Your task to perform on an android device: Go to Wikipedia Image 0: 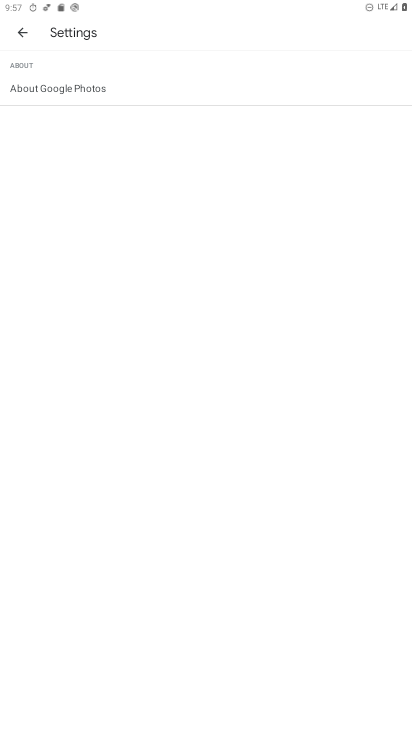
Step 0: press home button
Your task to perform on an android device: Go to Wikipedia Image 1: 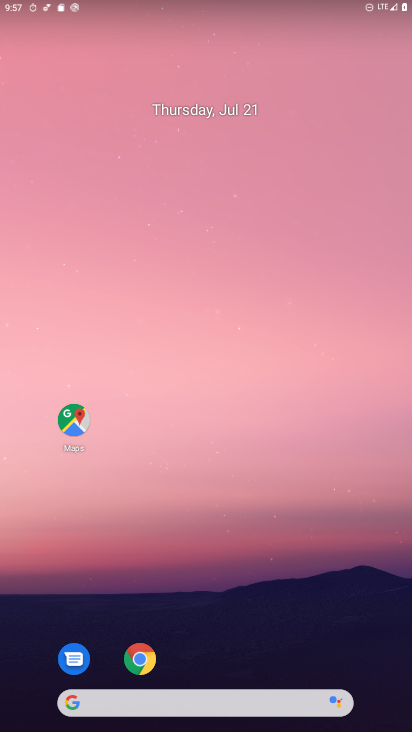
Step 1: drag from (315, 638) to (246, 94)
Your task to perform on an android device: Go to Wikipedia Image 2: 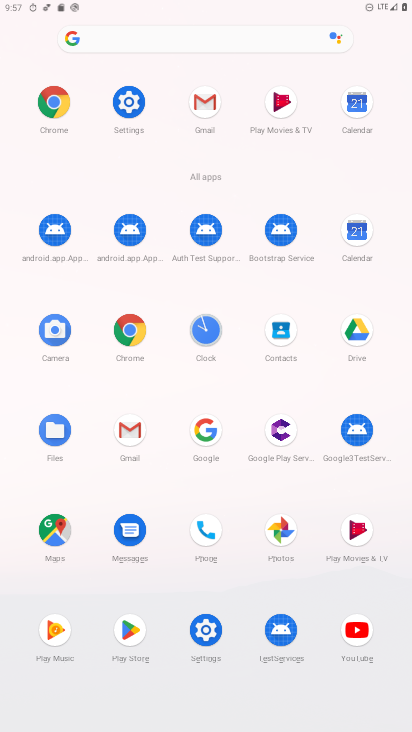
Step 2: click (125, 330)
Your task to perform on an android device: Go to Wikipedia Image 3: 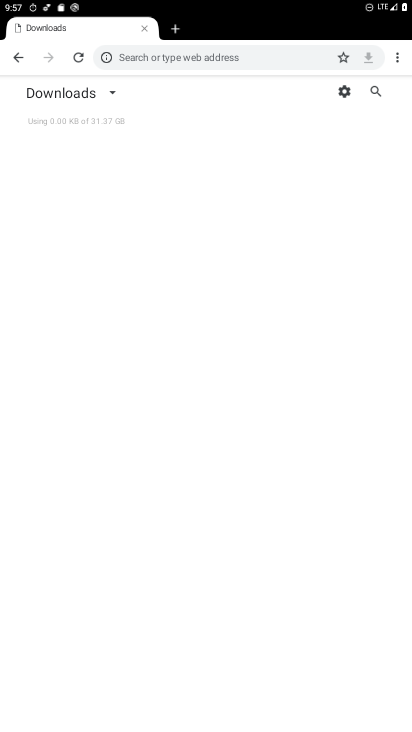
Step 3: click (208, 51)
Your task to perform on an android device: Go to Wikipedia Image 4: 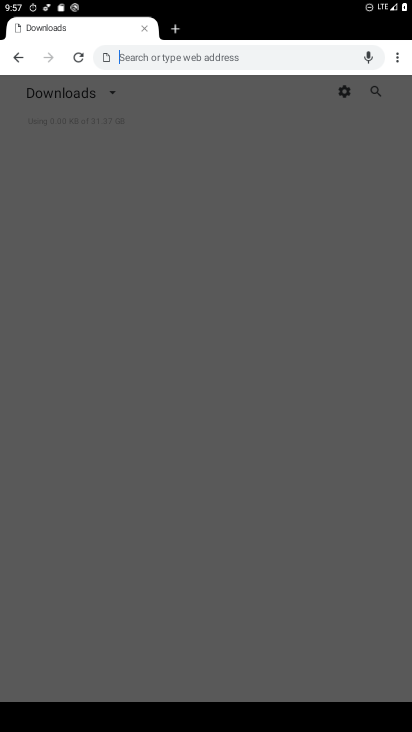
Step 4: type "wikipedia"
Your task to perform on an android device: Go to Wikipedia Image 5: 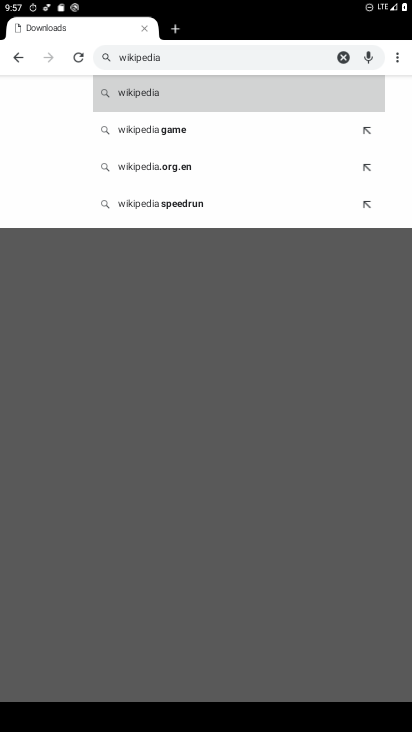
Step 5: click (215, 89)
Your task to perform on an android device: Go to Wikipedia Image 6: 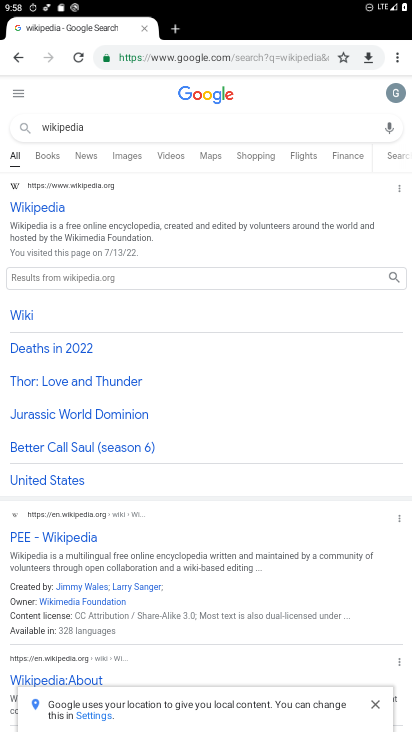
Step 6: click (53, 213)
Your task to perform on an android device: Go to Wikipedia Image 7: 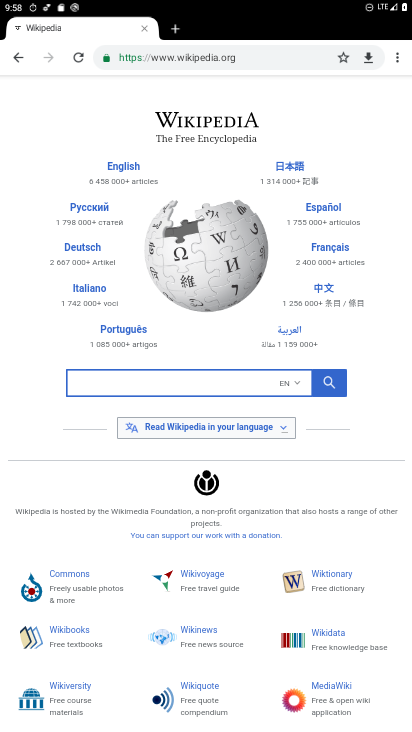
Step 7: task complete